Your task to perform on an android device: visit the assistant section in the google photos Image 0: 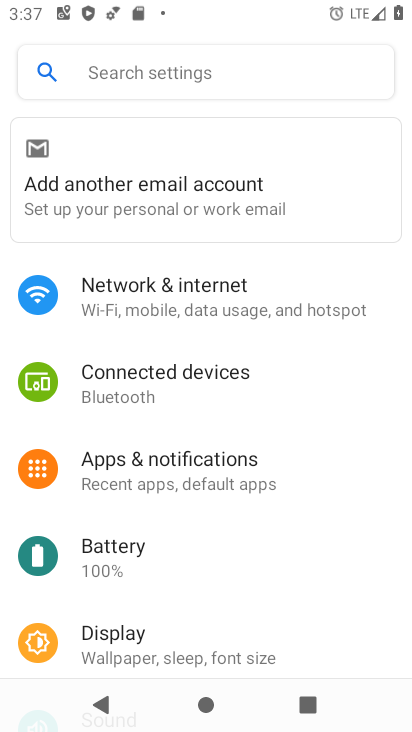
Step 0: press back button
Your task to perform on an android device: visit the assistant section in the google photos Image 1: 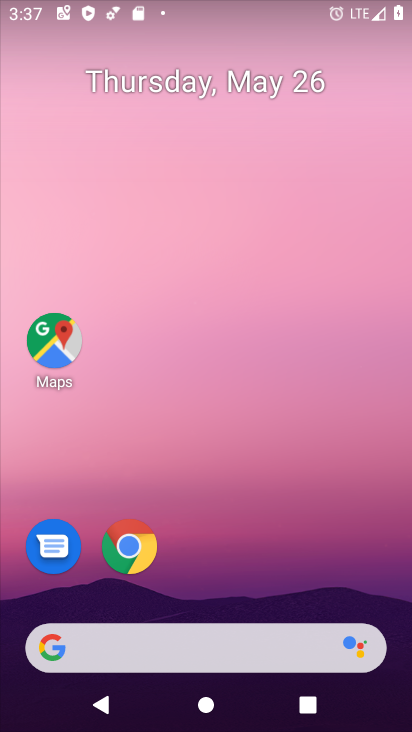
Step 1: drag from (227, 541) to (300, 63)
Your task to perform on an android device: visit the assistant section in the google photos Image 2: 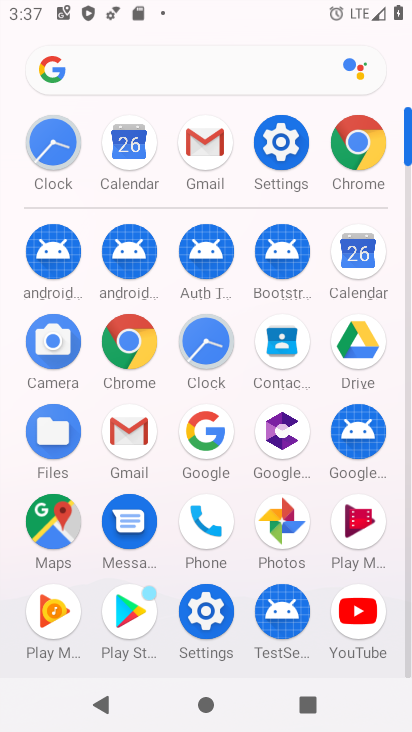
Step 2: click (282, 521)
Your task to perform on an android device: visit the assistant section in the google photos Image 3: 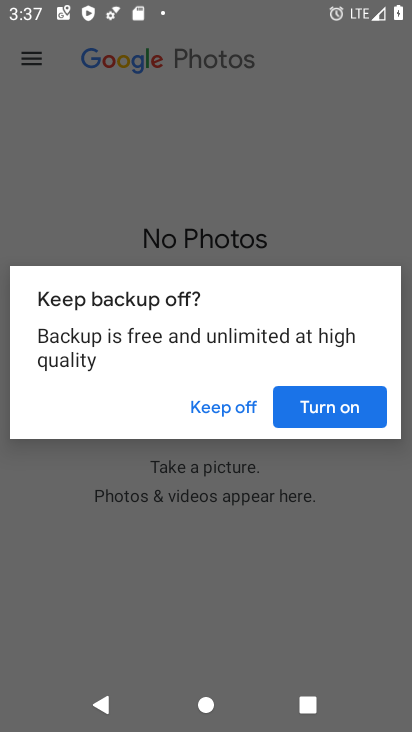
Step 3: click (213, 392)
Your task to perform on an android device: visit the assistant section in the google photos Image 4: 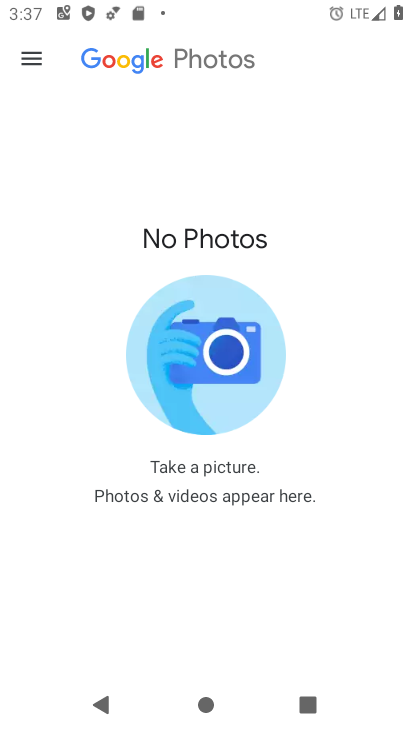
Step 4: task complete